Your task to perform on an android device: Open calendar and show me the first week of next month Image 0: 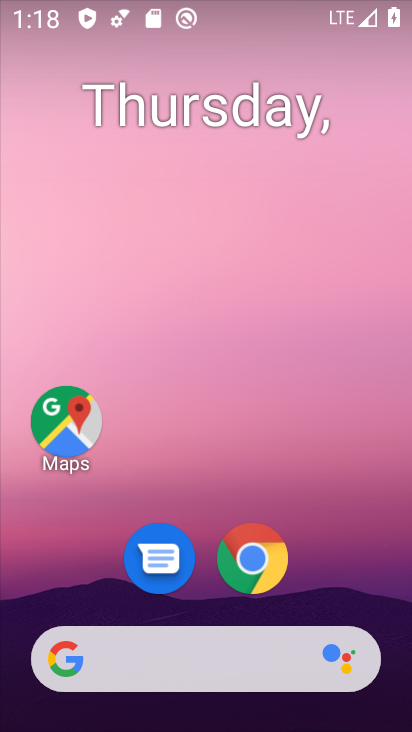
Step 0: drag from (334, 474) to (315, 40)
Your task to perform on an android device: Open calendar and show me the first week of next month Image 1: 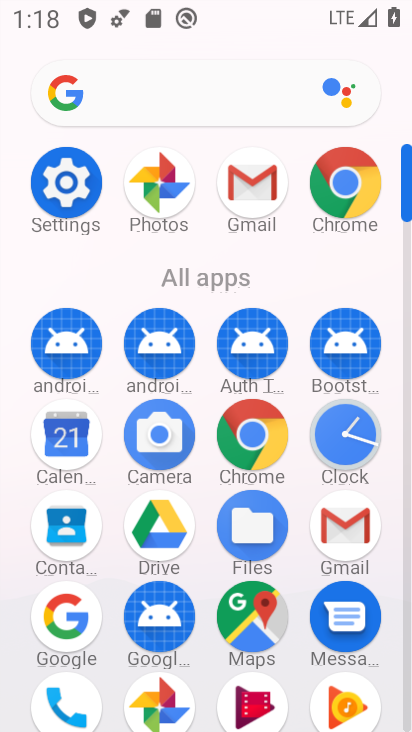
Step 1: click (76, 177)
Your task to perform on an android device: Open calendar and show me the first week of next month Image 2: 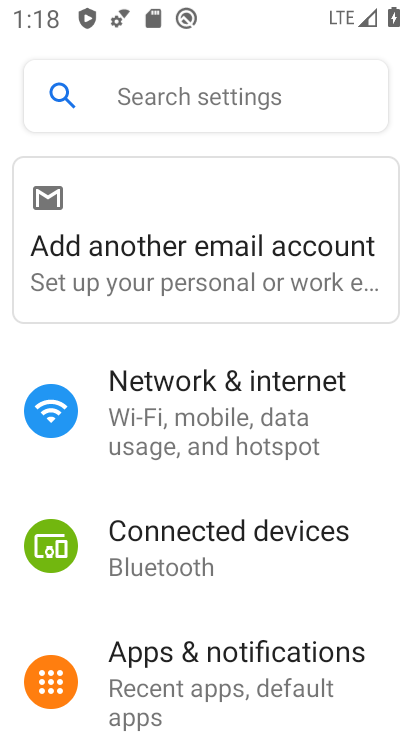
Step 2: drag from (332, 642) to (335, 276)
Your task to perform on an android device: Open calendar and show me the first week of next month Image 3: 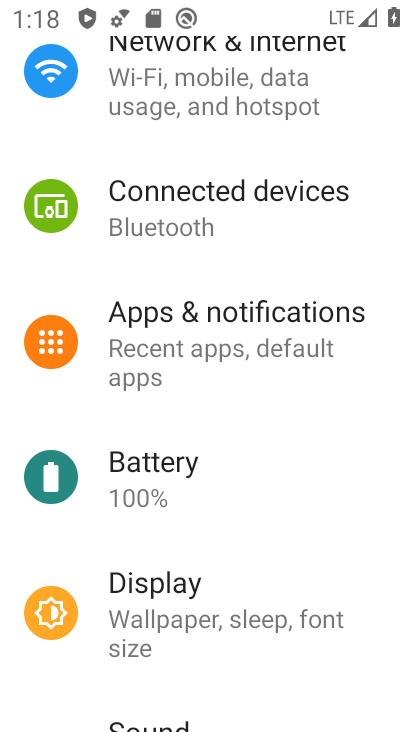
Step 3: press home button
Your task to perform on an android device: Open calendar and show me the first week of next month Image 4: 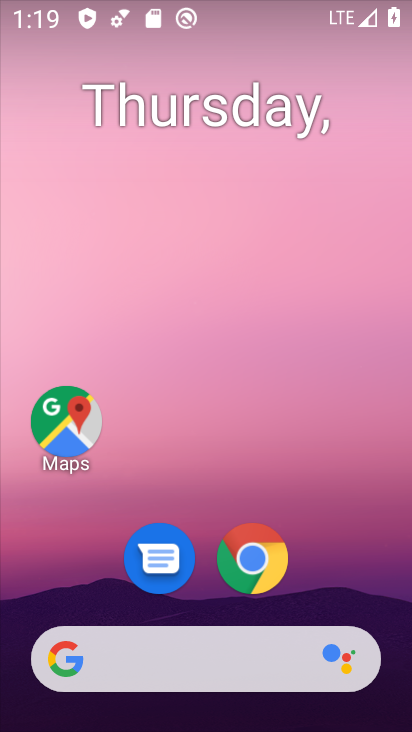
Step 4: drag from (323, 560) to (317, 80)
Your task to perform on an android device: Open calendar and show me the first week of next month Image 5: 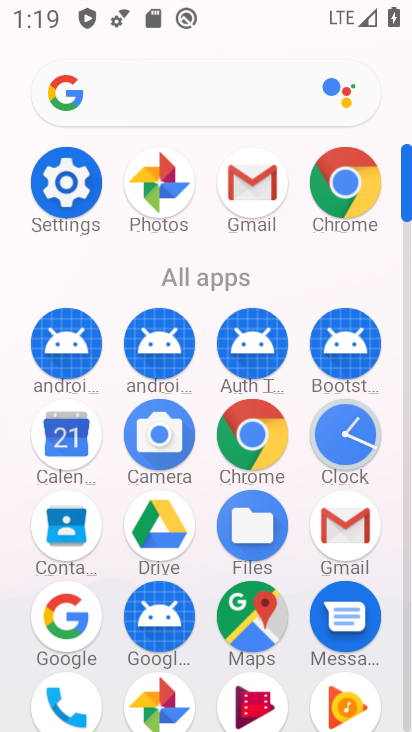
Step 5: click (406, 717)
Your task to perform on an android device: Open calendar and show me the first week of next month Image 6: 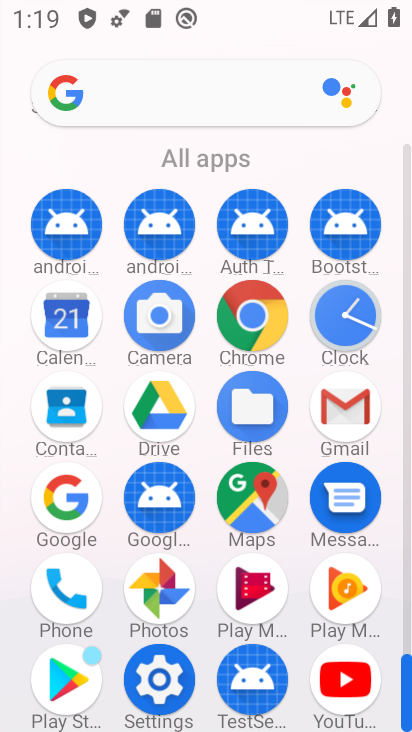
Step 6: click (61, 315)
Your task to perform on an android device: Open calendar and show me the first week of next month Image 7: 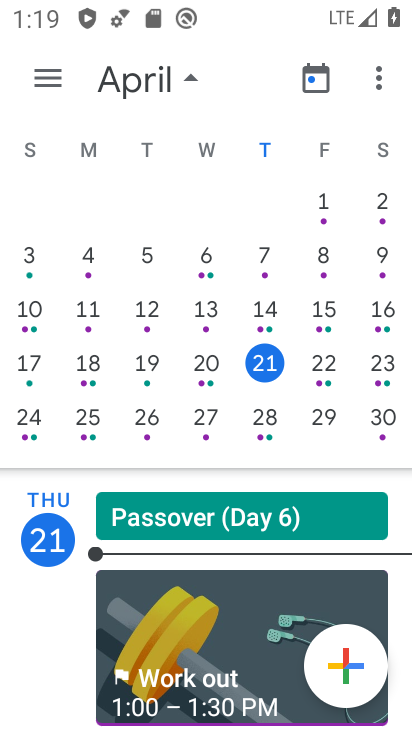
Step 7: task complete